Your task to perform on an android device: Toggle the flashlight Image 0: 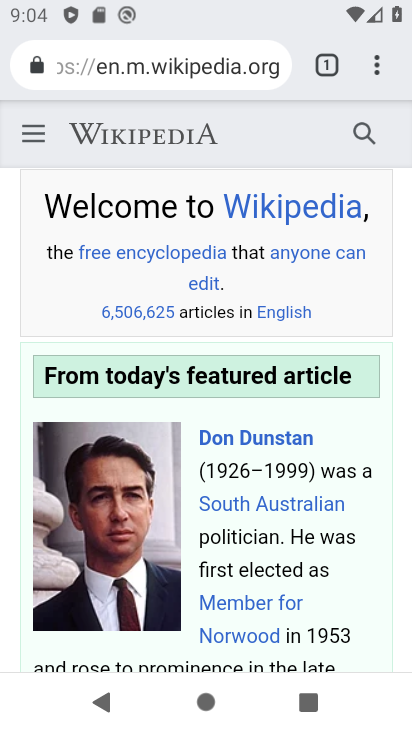
Step 0: press home button
Your task to perform on an android device: Toggle the flashlight Image 1: 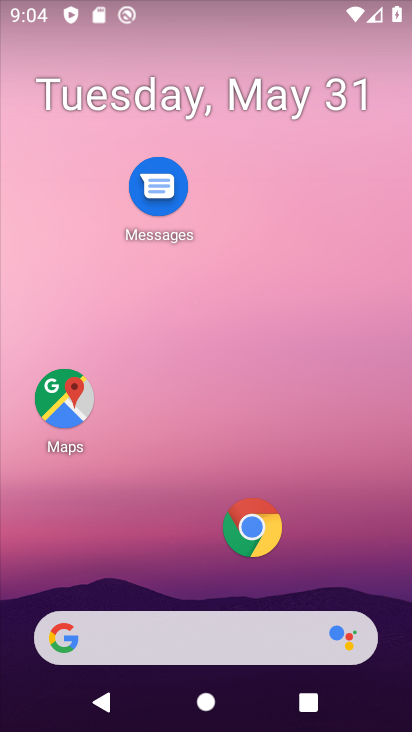
Step 1: task complete